Your task to perform on an android device: Go to Google maps Image 0: 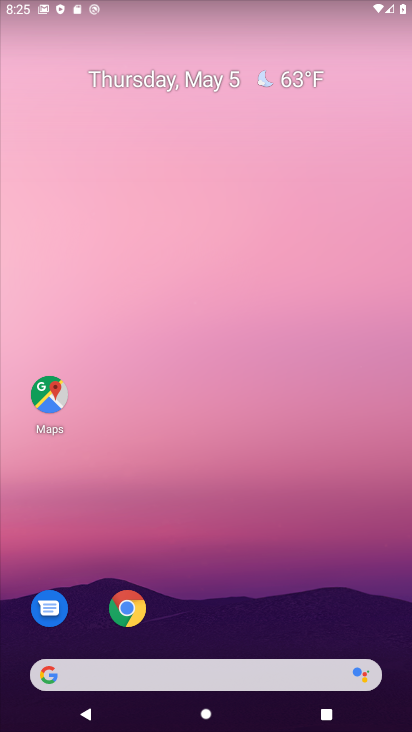
Step 0: drag from (220, 584) to (151, 175)
Your task to perform on an android device: Go to Google maps Image 1: 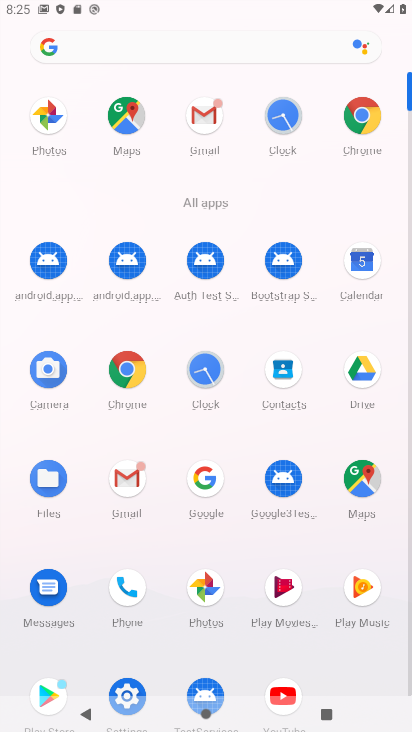
Step 1: click (127, 126)
Your task to perform on an android device: Go to Google maps Image 2: 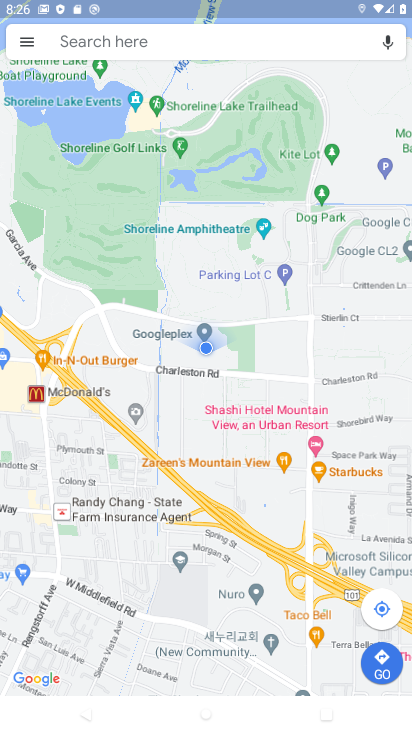
Step 2: task complete